Your task to perform on an android device: find snoozed emails in the gmail app Image 0: 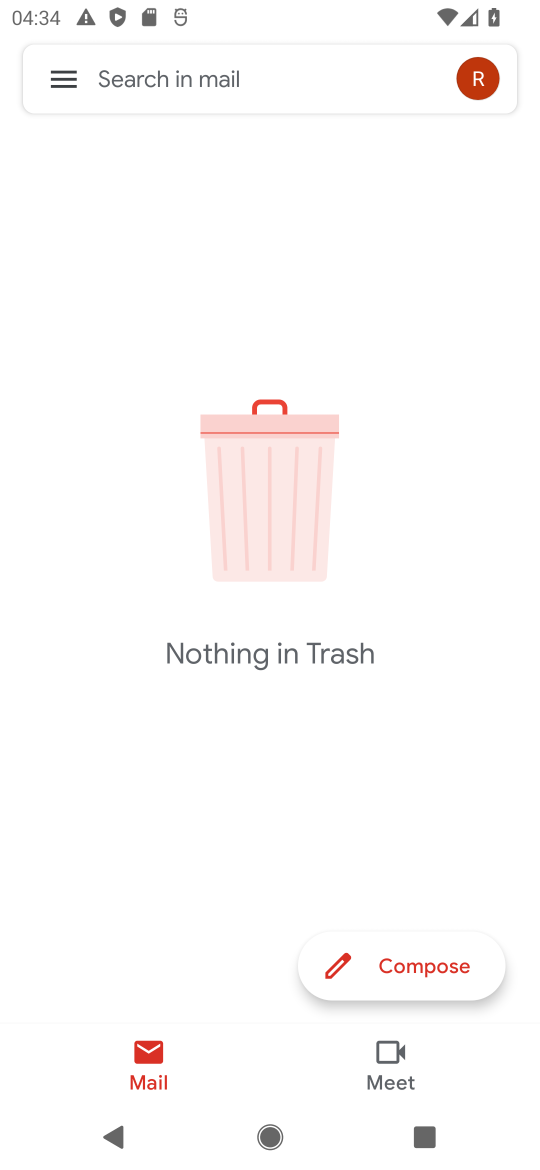
Step 0: click (70, 77)
Your task to perform on an android device: find snoozed emails in the gmail app Image 1: 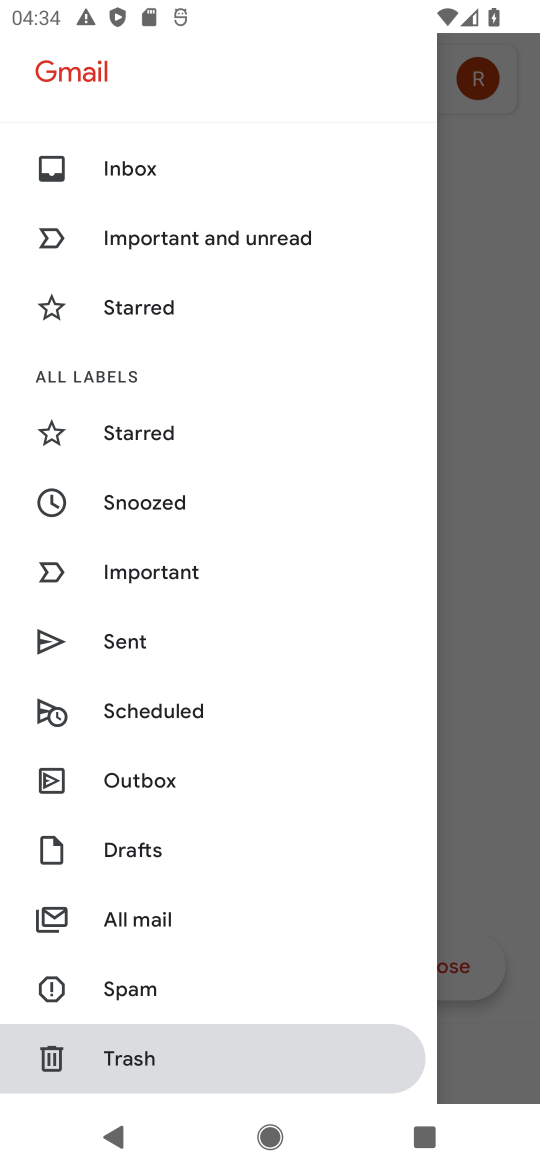
Step 1: click (195, 504)
Your task to perform on an android device: find snoozed emails in the gmail app Image 2: 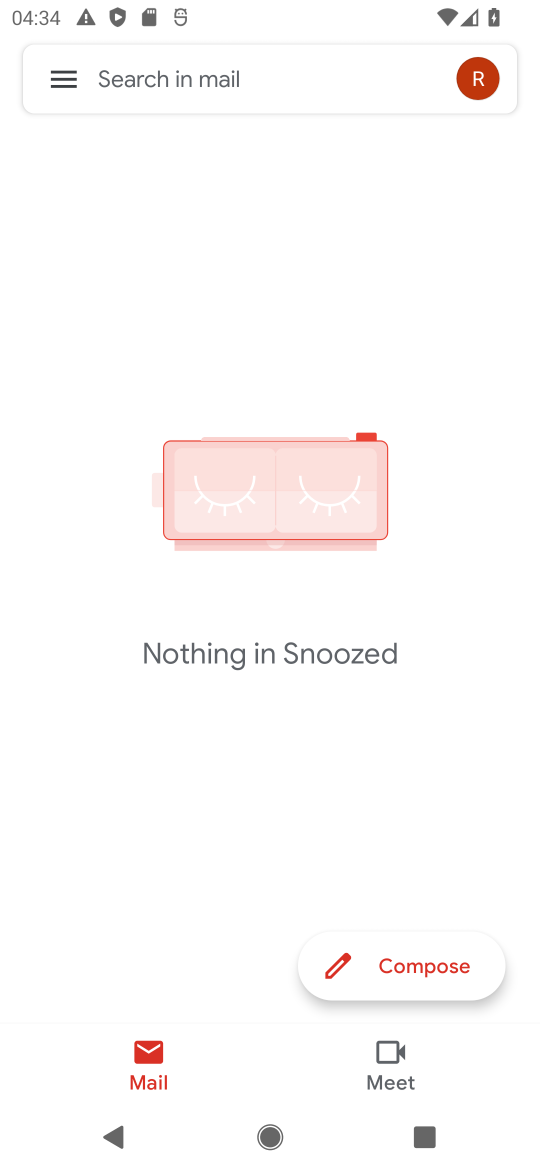
Step 2: task complete